Your task to perform on an android device: Clear all items from cart on walmart.com. Search for "bose quietcomfort 35" on walmart.com, select the first entry, add it to the cart, then select checkout. Image 0: 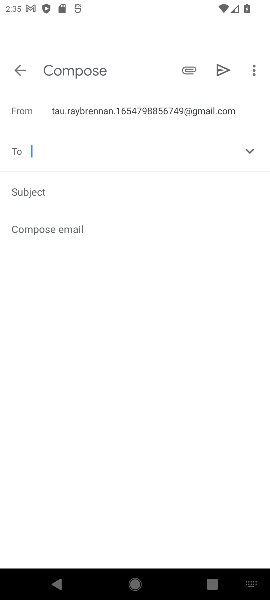
Step 0: press home button
Your task to perform on an android device: Clear all items from cart on walmart.com. Search for "bose quietcomfort 35" on walmart.com, select the first entry, add it to the cart, then select checkout. Image 1: 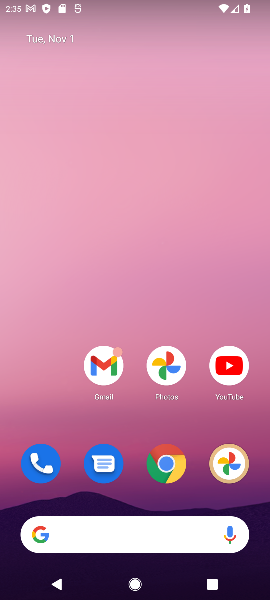
Step 1: drag from (123, 418) to (51, 80)
Your task to perform on an android device: Clear all items from cart on walmart.com. Search for "bose quietcomfort 35" on walmart.com, select the first entry, add it to the cart, then select checkout. Image 2: 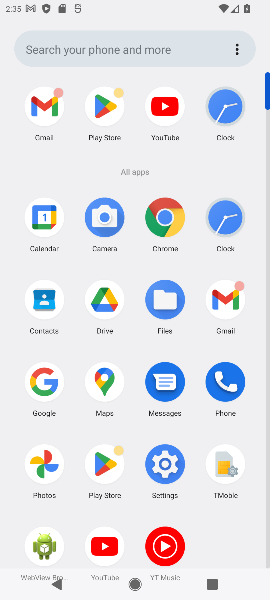
Step 2: click (165, 219)
Your task to perform on an android device: Clear all items from cart on walmart.com. Search for "bose quietcomfort 35" on walmart.com, select the first entry, add it to the cart, then select checkout. Image 3: 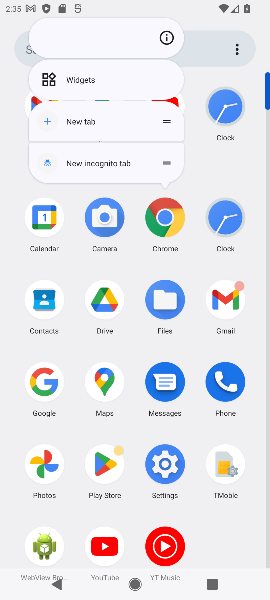
Step 3: click (165, 219)
Your task to perform on an android device: Clear all items from cart on walmart.com. Search for "bose quietcomfort 35" on walmart.com, select the first entry, add it to the cart, then select checkout. Image 4: 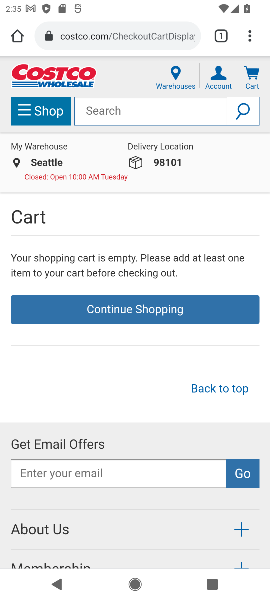
Step 4: click (160, 34)
Your task to perform on an android device: Clear all items from cart on walmart.com. Search for "bose quietcomfort 35" on walmart.com, select the first entry, add it to the cart, then select checkout. Image 5: 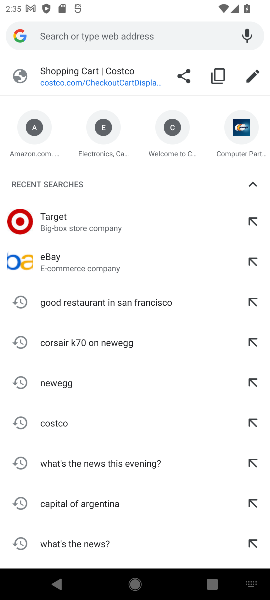
Step 5: type "walmart.com"
Your task to perform on an android device: Clear all items from cart on walmart.com. Search for "bose quietcomfort 35" on walmart.com, select the first entry, add it to the cart, then select checkout. Image 6: 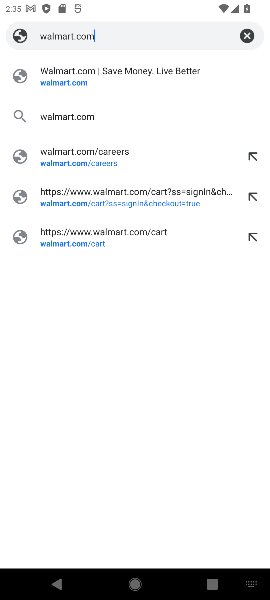
Step 6: press enter
Your task to perform on an android device: Clear all items from cart on walmart.com. Search for "bose quietcomfort 35" on walmart.com, select the first entry, add it to the cart, then select checkout. Image 7: 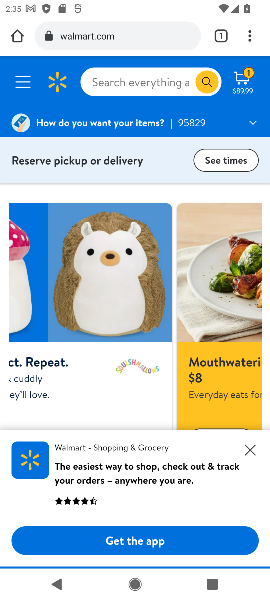
Step 7: click (130, 79)
Your task to perform on an android device: Clear all items from cart on walmart.com. Search for "bose quietcomfort 35" on walmart.com, select the first entry, add it to the cart, then select checkout. Image 8: 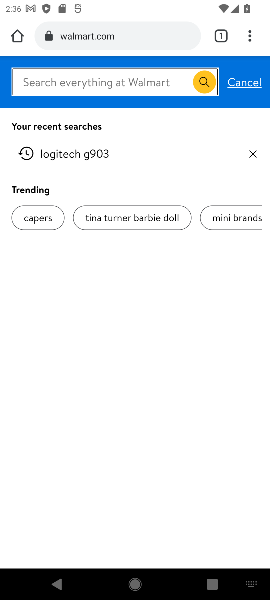
Step 8: type "bose quitcomfort 35"
Your task to perform on an android device: Clear all items from cart on walmart.com. Search for "bose quietcomfort 35" on walmart.com, select the first entry, add it to the cart, then select checkout. Image 9: 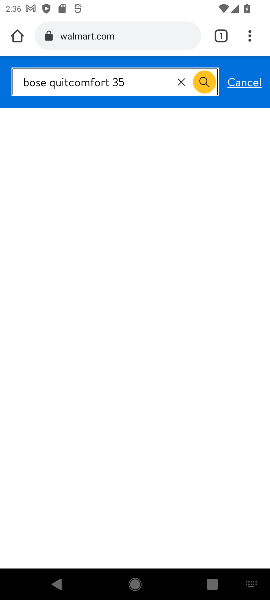
Step 9: press enter
Your task to perform on an android device: Clear all items from cart on walmart.com. Search for "bose quietcomfort 35" on walmart.com, select the first entry, add it to the cart, then select checkout. Image 10: 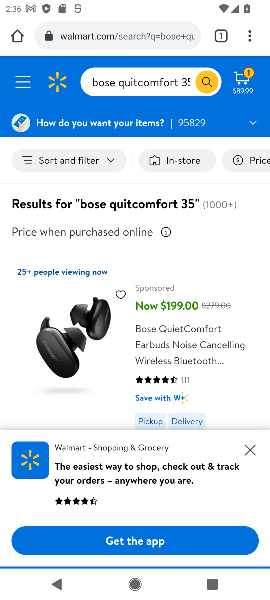
Step 10: drag from (136, 379) to (139, 151)
Your task to perform on an android device: Clear all items from cart on walmart.com. Search for "bose quietcomfort 35" on walmart.com, select the first entry, add it to the cart, then select checkout. Image 11: 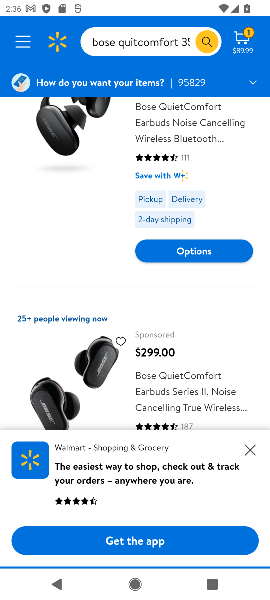
Step 11: drag from (154, 160) to (163, 270)
Your task to perform on an android device: Clear all items from cart on walmart.com. Search for "bose quietcomfort 35" on walmart.com, select the first entry, add it to the cart, then select checkout. Image 12: 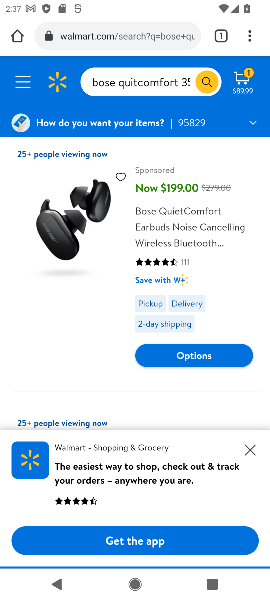
Step 12: click (245, 74)
Your task to perform on an android device: Clear all items from cart on walmart.com. Search for "bose quietcomfort 35" on walmart.com, select the first entry, add it to the cart, then select checkout. Image 13: 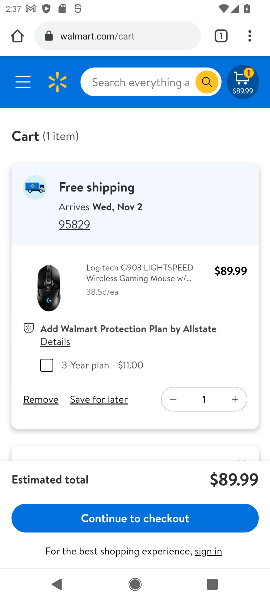
Step 13: click (40, 400)
Your task to perform on an android device: Clear all items from cart on walmart.com. Search for "bose quietcomfort 35" on walmart.com, select the first entry, add it to the cart, then select checkout. Image 14: 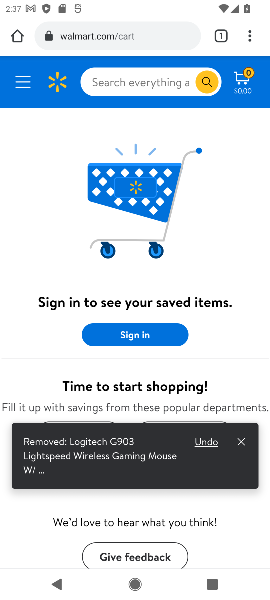
Step 14: click (145, 83)
Your task to perform on an android device: Clear all items from cart on walmart.com. Search for "bose quietcomfort 35" on walmart.com, select the first entry, add it to the cart, then select checkout. Image 15: 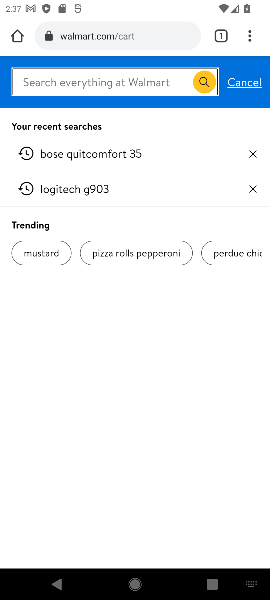
Step 15: type "bose quietcomfort 35"
Your task to perform on an android device: Clear all items from cart on walmart.com. Search for "bose quietcomfort 35" on walmart.com, select the first entry, add it to the cart, then select checkout. Image 16: 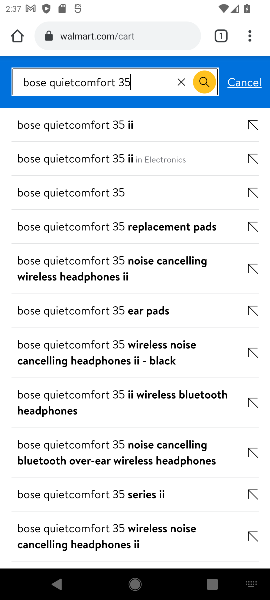
Step 16: press enter
Your task to perform on an android device: Clear all items from cart on walmart.com. Search for "bose quietcomfort 35" on walmart.com, select the first entry, add it to the cart, then select checkout. Image 17: 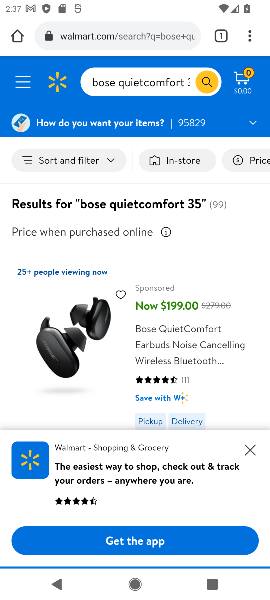
Step 17: drag from (193, 371) to (225, 106)
Your task to perform on an android device: Clear all items from cart on walmart.com. Search for "bose quietcomfort 35" on walmart.com, select the first entry, add it to the cart, then select checkout. Image 18: 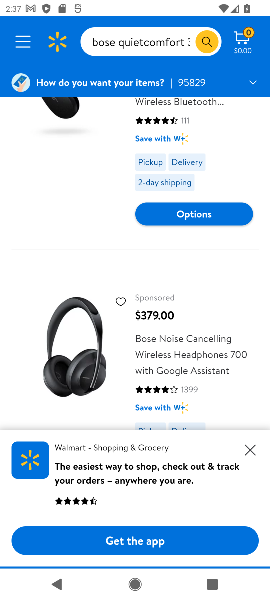
Step 18: drag from (203, 388) to (209, 192)
Your task to perform on an android device: Clear all items from cart on walmart.com. Search for "bose quietcomfort 35" on walmart.com, select the first entry, add it to the cart, then select checkout. Image 19: 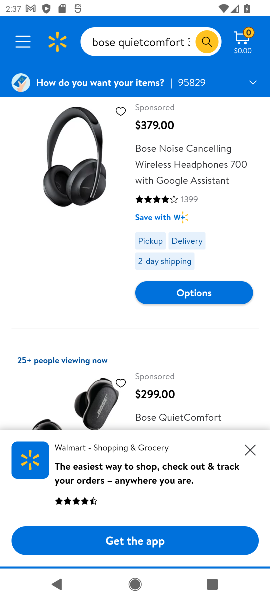
Step 19: drag from (194, 323) to (116, 147)
Your task to perform on an android device: Clear all items from cart on walmart.com. Search for "bose quietcomfort 35" on walmart.com, select the first entry, add it to the cart, then select checkout. Image 20: 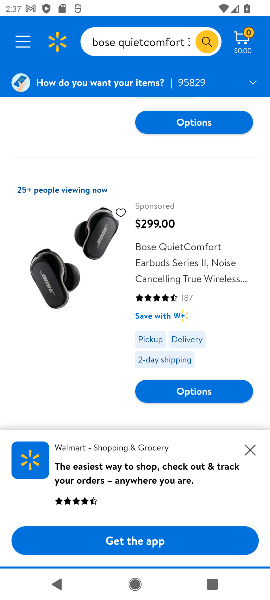
Step 20: drag from (122, 455) to (112, 222)
Your task to perform on an android device: Clear all items from cart on walmart.com. Search for "bose quietcomfort 35" on walmart.com, select the first entry, add it to the cart, then select checkout. Image 21: 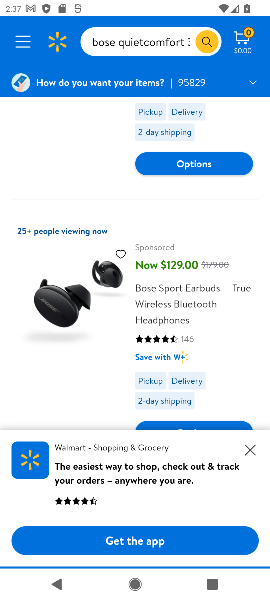
Step 21: drag from (107, 399) to (120, 151)
Your task to perform on an android device: Clear all items from cart on walmart.com. Search for "bose quietcomfort 35" on walmart.com, select the first entry, add it to the cart, then select checkout. Image 22: 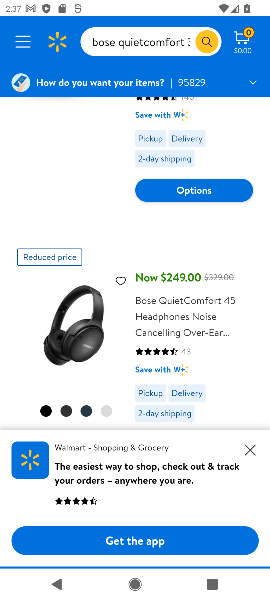
Step 22: drag from (162, 339) to (106, 117)
Your task to perform on an android device: Clear all items from cart on walmart.com. Search for "bose quietcomfort 35" on walmart.com, select the first entry, add it to the cart, then select checkout. Image 23: 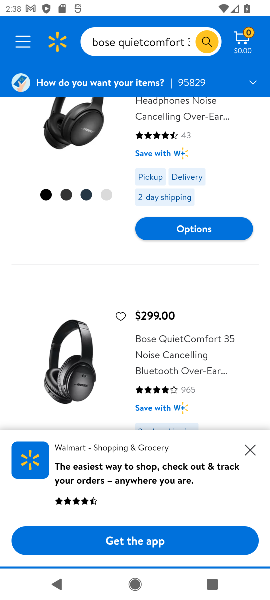
Step 23: click (192, 341)
Your task to perform on an android device: Clear all items from cart on walmart.com. Search for "bose quietcomfort 35" on walmart.com, select the first entry, add it to the cart, then select checkout. Image 24: 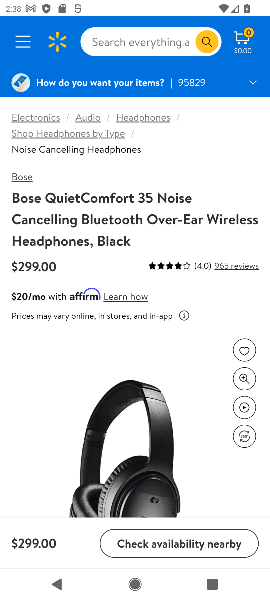
Step 24: task complete